Your task to perform on an android device: turn on the 12-hour format for clock Image 0: 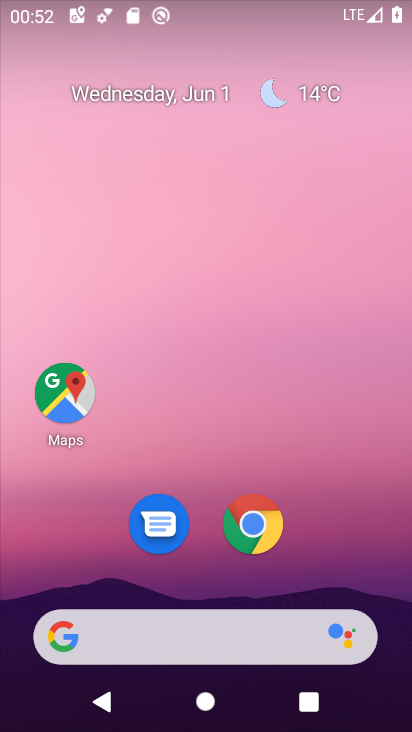
Step 0: drag from (318, 486) to (322, 26)
Your task to perform on an android device: turn on the 12-hour format for clock Image 1: 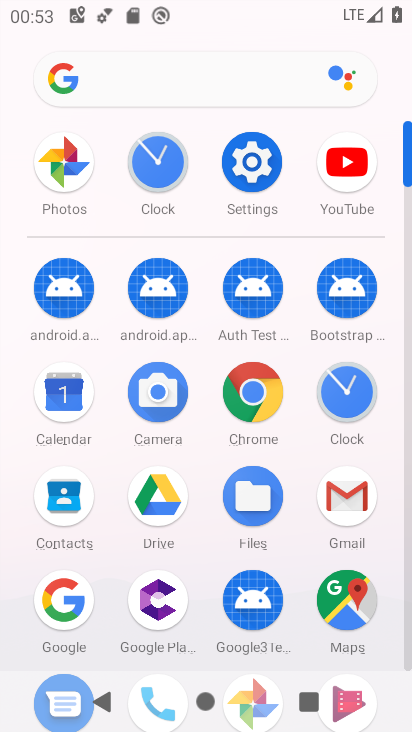
Step 1: click (167, 160)
Your task to perform on an android device: turn on the 12-hour format for clock Image 2: 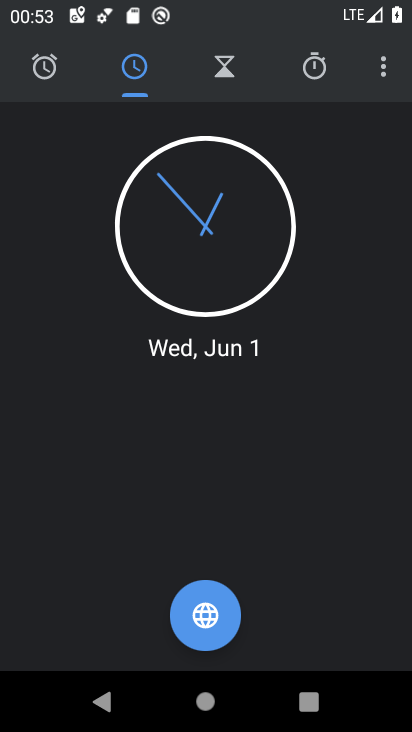
Step 2: click (381, 66)
Your task to perform on an android device: turn on the 12-hour format for clock Image 3: 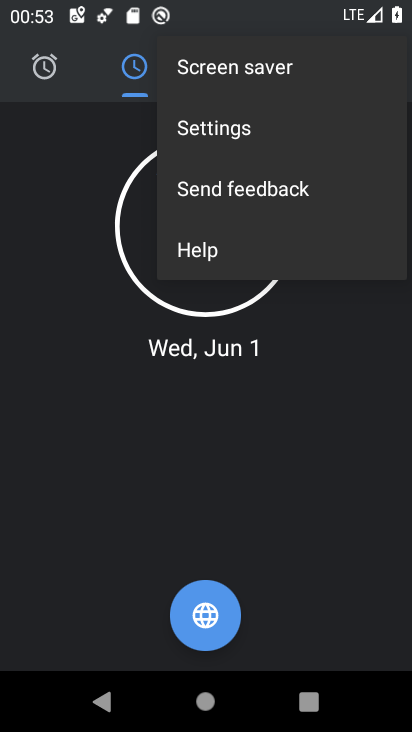
Step 3: click (308, 136)
Your task to perform on an android device: turn on the 12-hour format for clock Image 4: 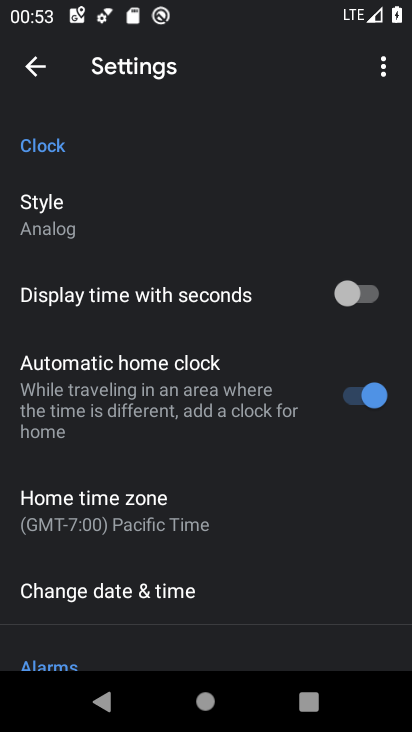
Step 4: click (254, 592)
Your task to perform on an android device: turn on the 12-hour format for clock Image 5: 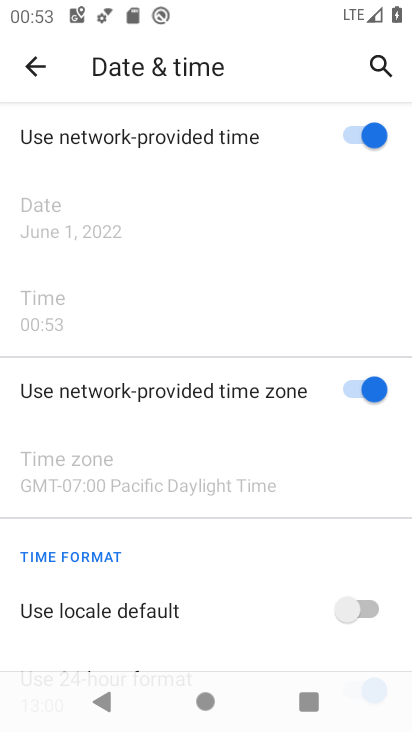
Step 5: drag from (255, 481) to (273, 262)
Your task to perform on an android device: turn on the 12-hour format for clock Image 6: 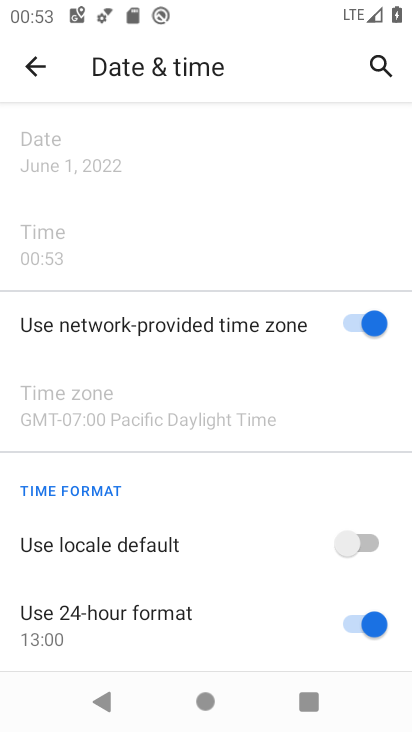
Step 6: click (348, 613)
Your task to perform on an android device: turn on the 12-hour format for clock Image 7: 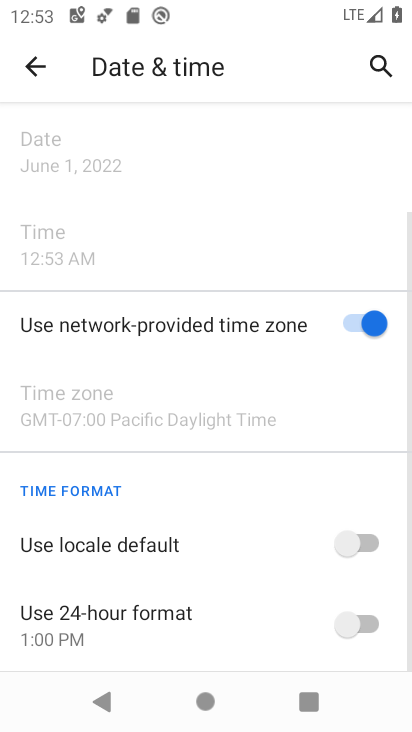
Step 7: click (358, 533)
Your task to perform on an android device: turn on the 12-hour format for clock Image 8: 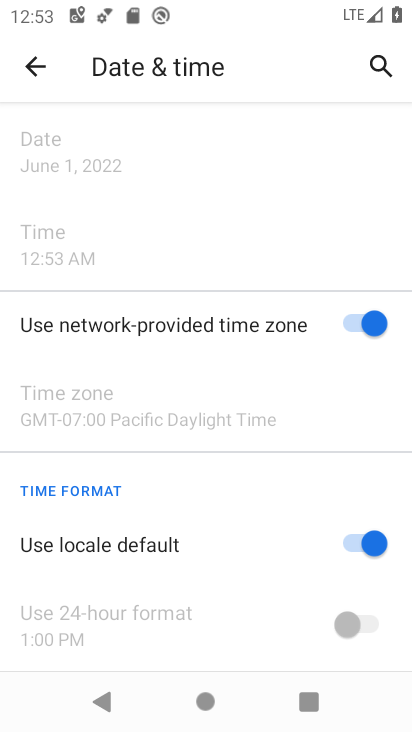
Step 8: task complete